Your task to perform on an android device: delete a single message in the gmail app Image 0: 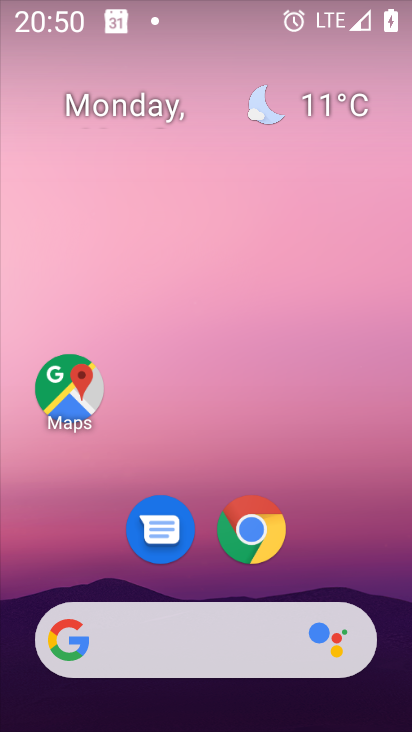
Step 0: drag from (136, 631) to (4, 434)
Your task to perform on an android device: delete a single message in the gmail app Image 1: 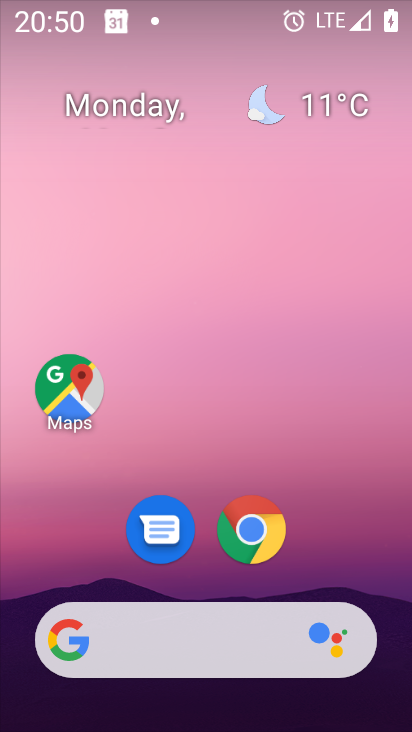
Step 1: drag from (249, 650) to (195, 74)
Your task to perform on an android device: delete a single message in the gmail app Image 2: 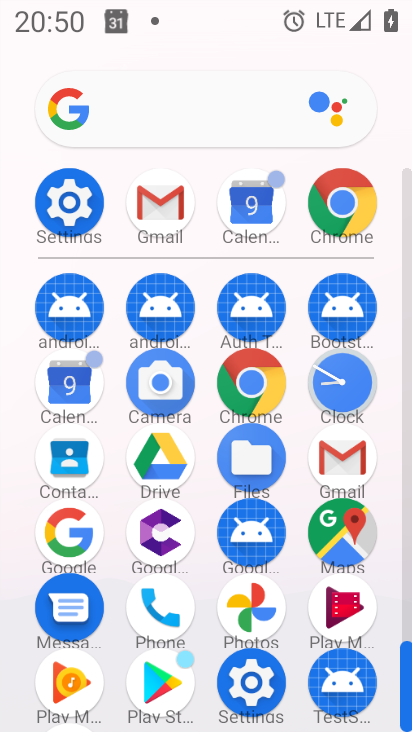
Step 2: click (338, 467)
Your task to perform on an android device: delete a single message in the gmail app Image 3: 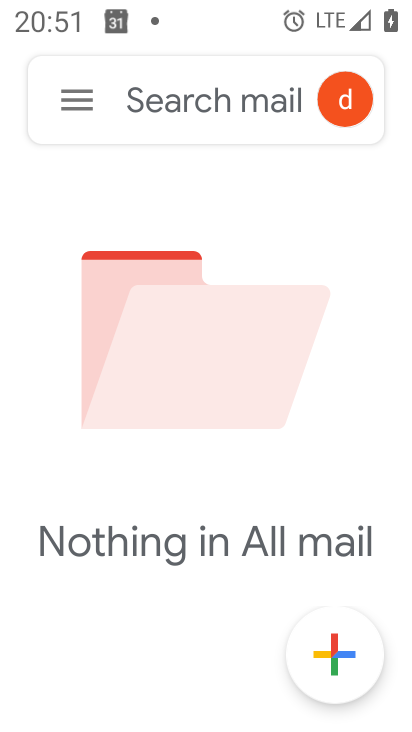
Step 3: click (79, 109)
Your task to perform on an android device: delete a single message in the gmail app Image 4: 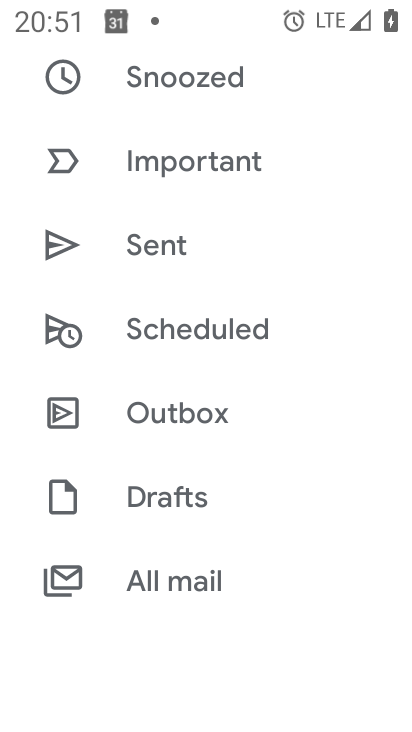
Step 4: click (182, 575)
Your task to perform on an android device: delete a single message in the gmail app Image 5: 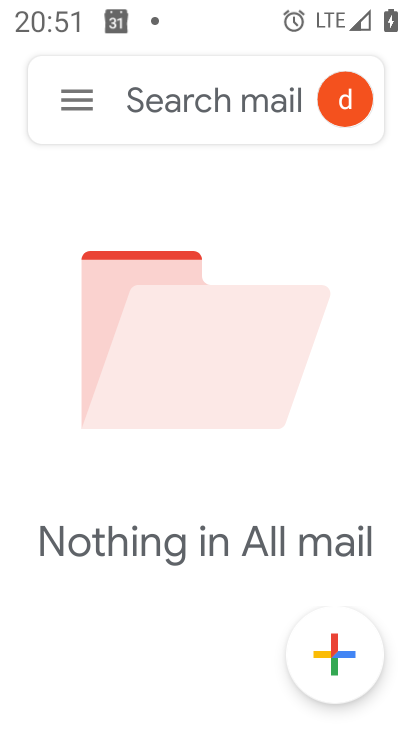
Step 5: task complete